Your task to perform on an android device: Go to accessibility settings Image 0: 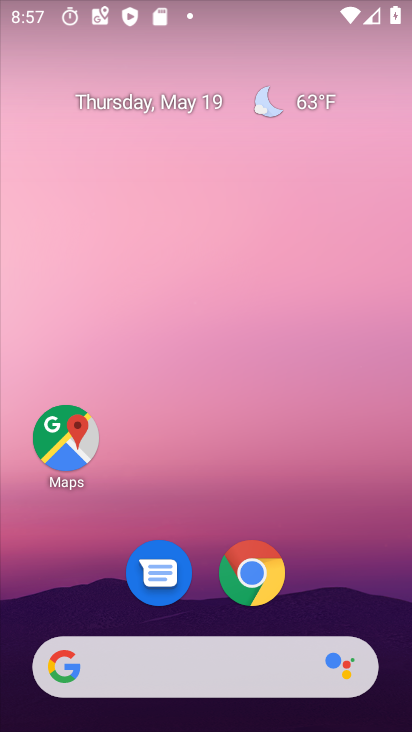
Step 0: drag from (366, 606) to (307, 1)
Your task to perform on an android device: Go to accessibility settings Image 1: 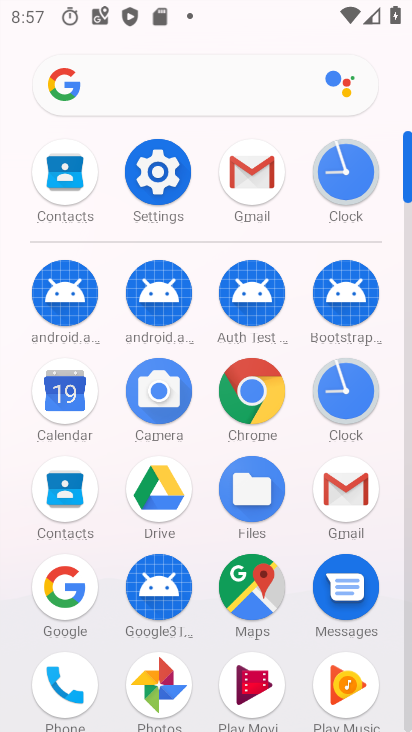
Step 1: click (165, 178)
Your task to perform on an android device: Go to accessibility settings Image 2: 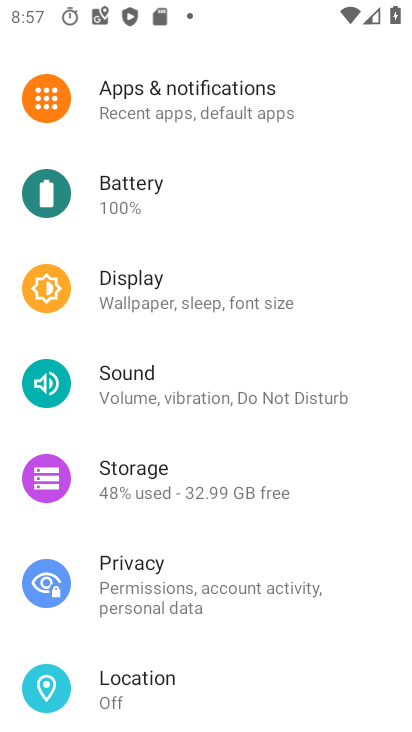
Step 2: drag from (270, 600) to (257, 133)
Your task to perform on an android device: Go to accessibility settings Image 3: 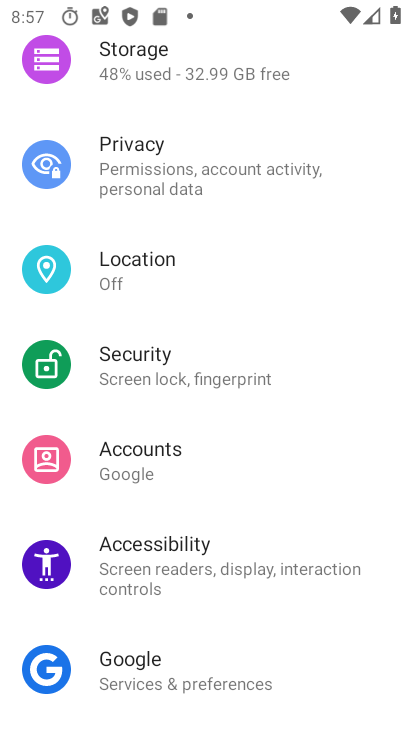
Step 3: click (140, 557)
Your task to perform on an android device: Go to accessibility settings Image 4: 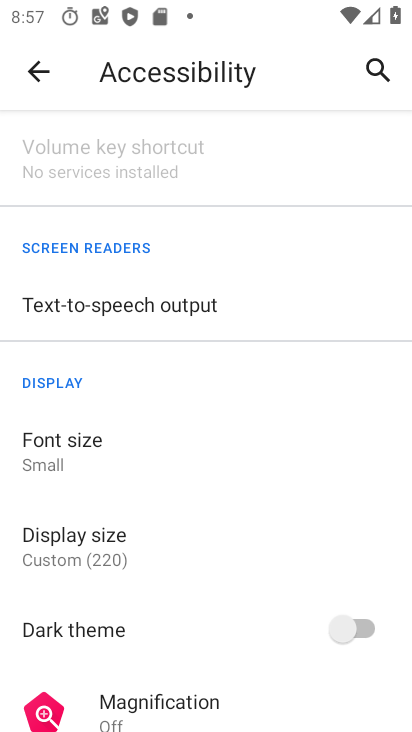
Step 4: task complete